Your task to perform on an android device: open app "Instagram" Image 0: 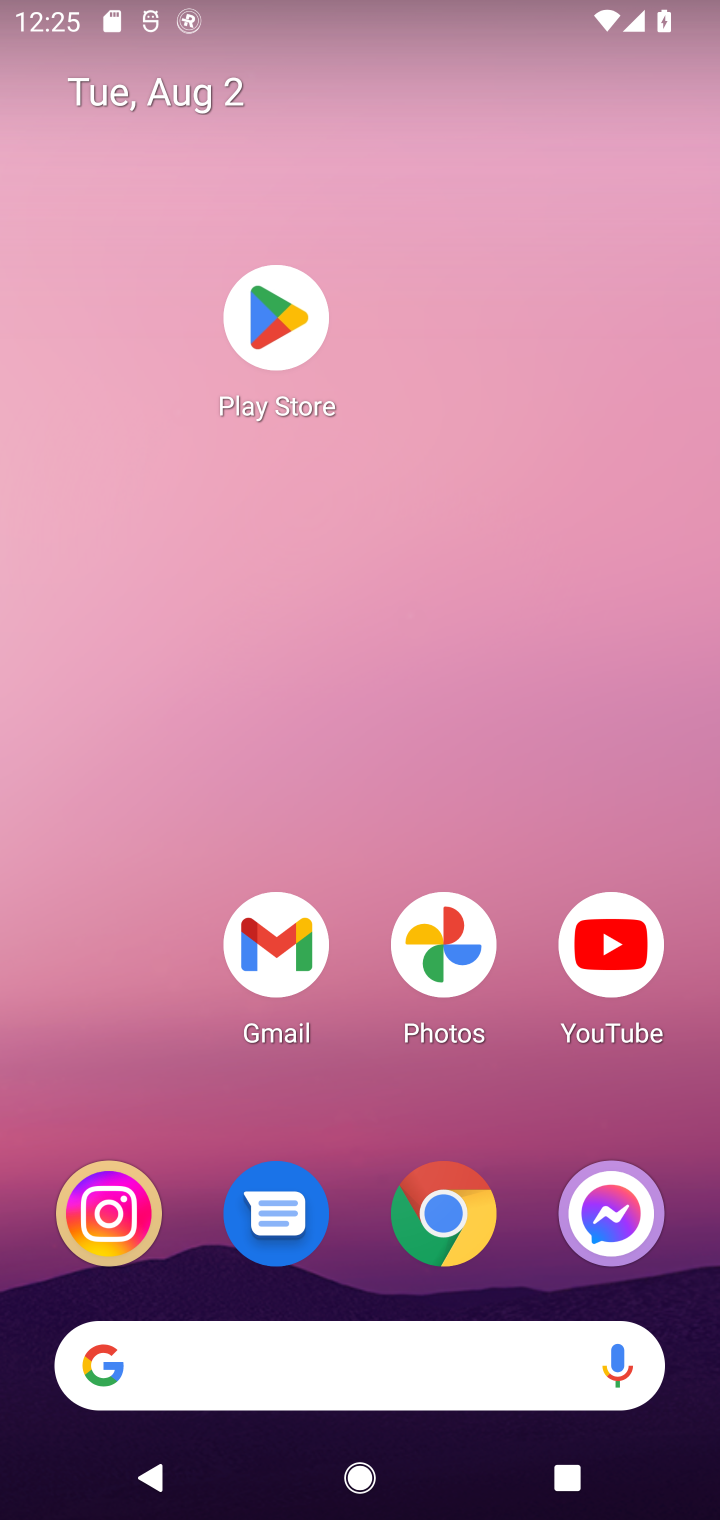
Step 0: click (281, 287)
Your task to perform on an android device: open app "Instagram" Image 1: 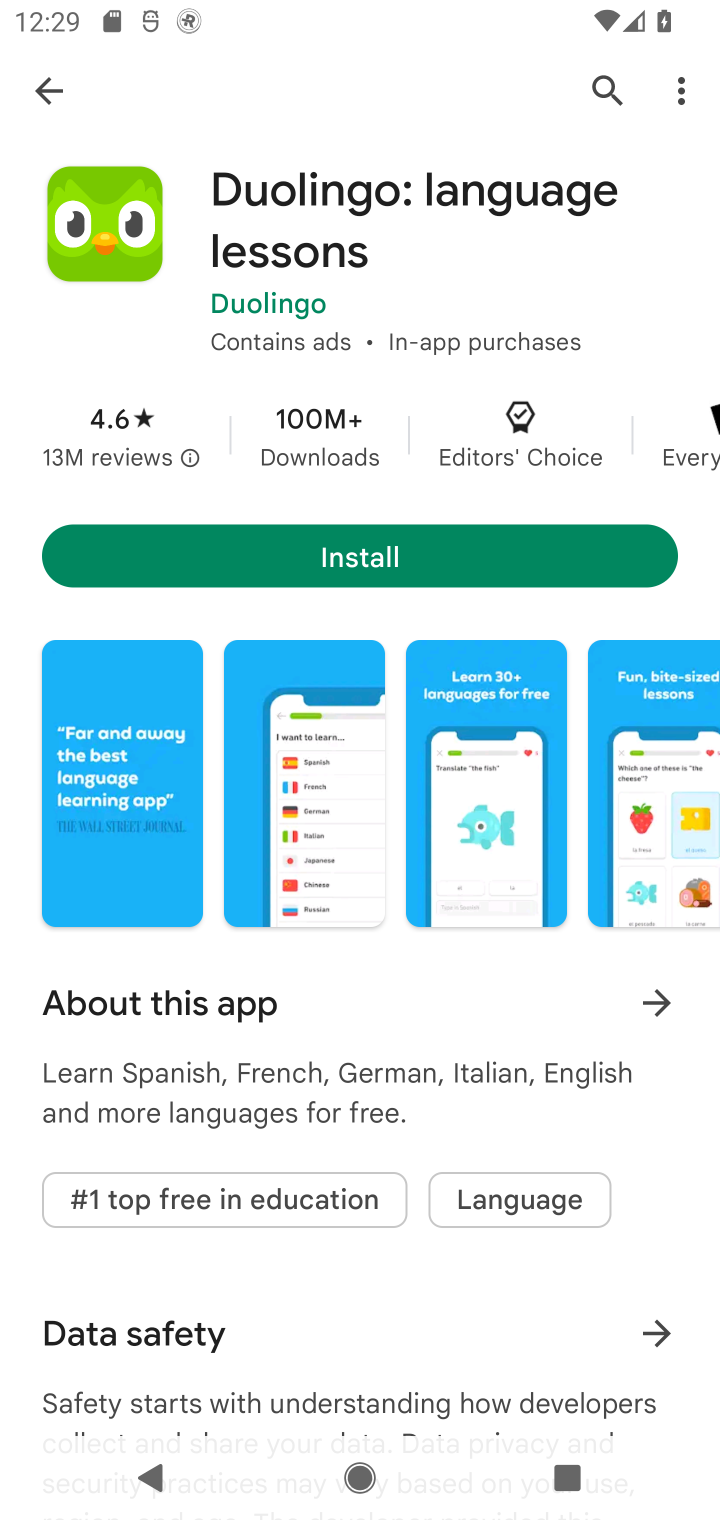
Step 1: task complete